Your task to perform on an android device: set default search engine in the chrome app Image 0: 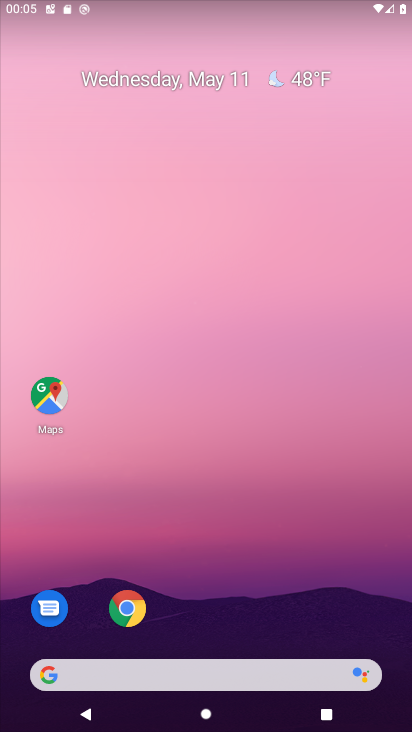
Step 0: click (142, 612)
Your task to perform on an android device: set default search engine in the chrome app Image 1: 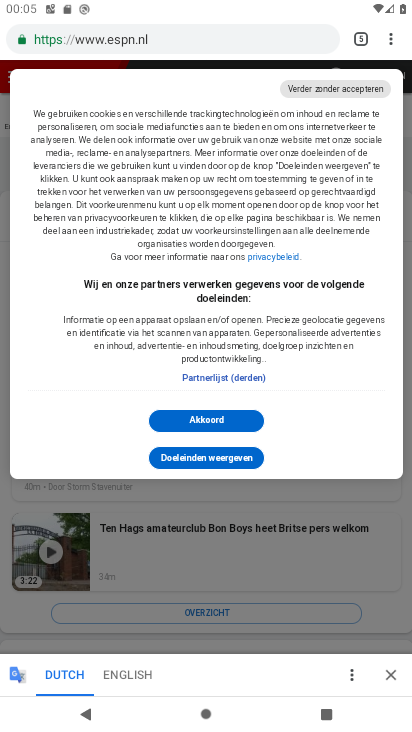
Step 1: click (398, 43)
Your task to perform on an android device: set default search engine in the chrome app Image 2: 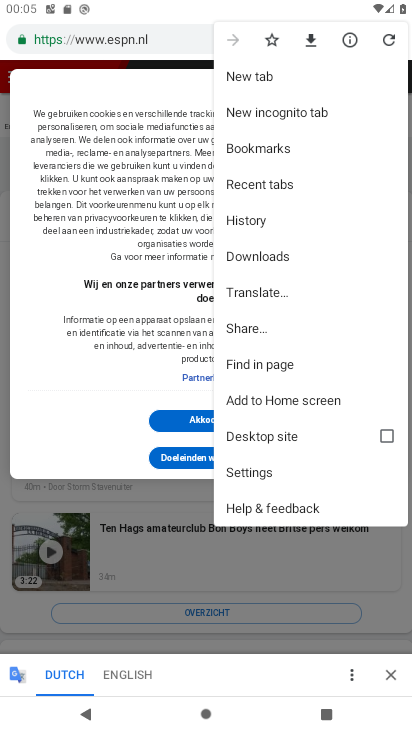
Step 2: click (263, 468)
Your task to perform on an android device: set default search engine in the chrome app Image 3: 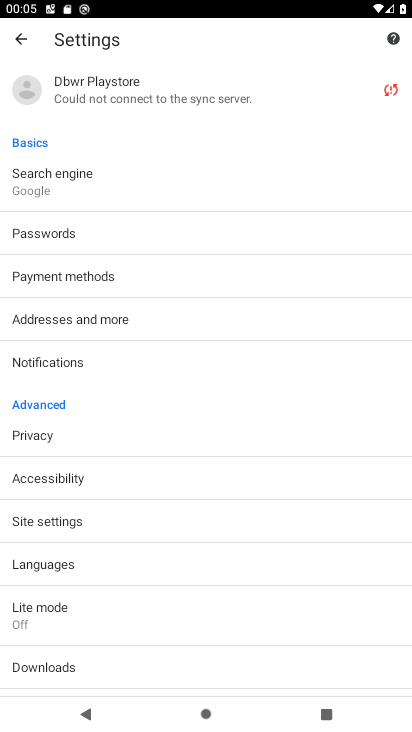
Step 3: click (108, 173)
Your task to perform on an android device: set default search engine in the chrome app Image 4: 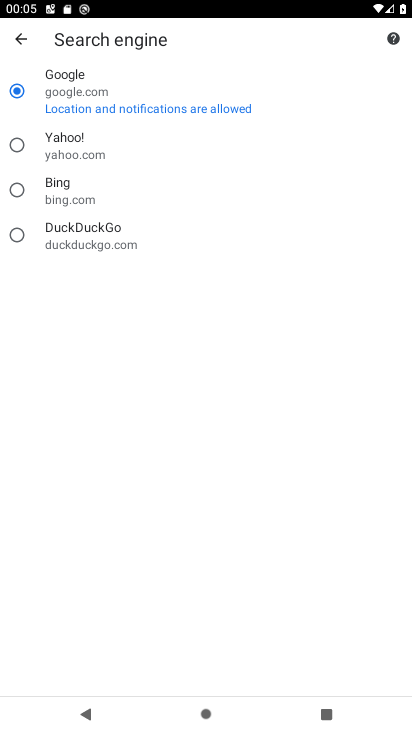
Step 4: click (94, 191)
Your task to perform on an android device: set default search engine in the chrome app Image 5: 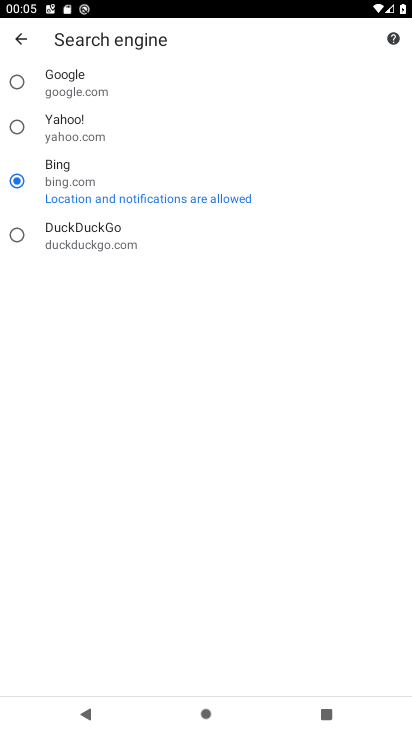
Step 5: task complete